Your task to perform on an android device: How much does a 3 bedroom apartment rent for in Boston? Image 0: 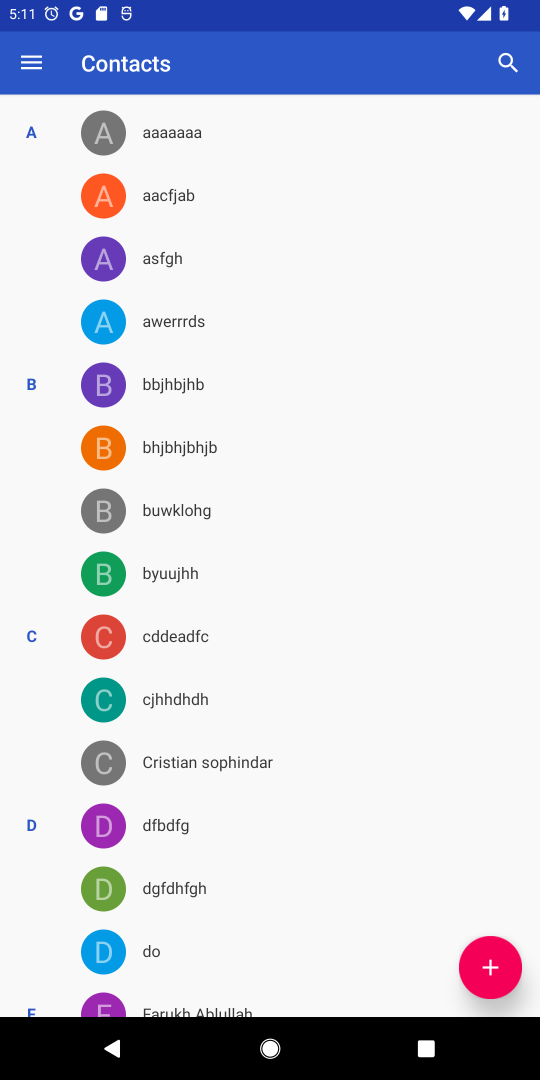
Step 0: task complete